Your task to perform on an android device: Go to internet settings Image 0: 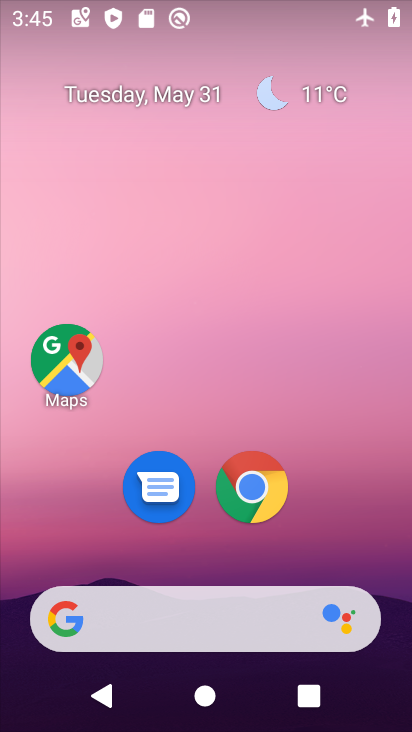
Step 0: drag from (358, 535) to (308, 121)
Your task to perform on an android device: Go to internet settings Image 1: 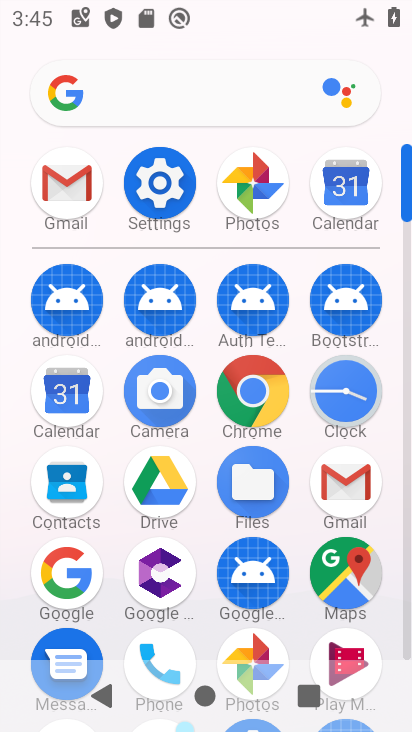
Step 1: click (159, 183)
Your task to perform on an android device: Go to internet settings Image 2: 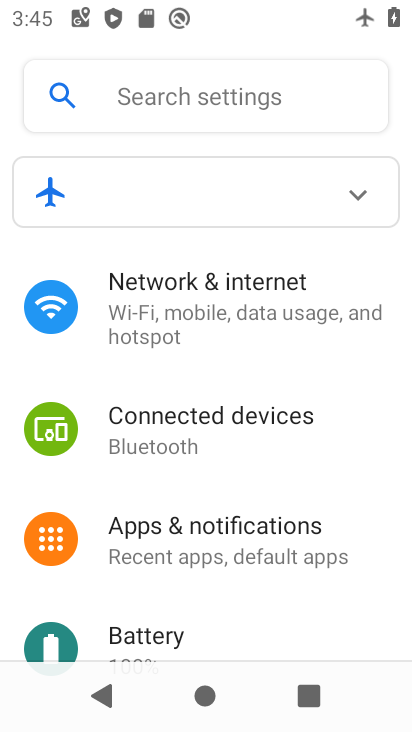
Step 2: click (194, 287)
Your task to perform on an android device: Go to internet settings Image 3: 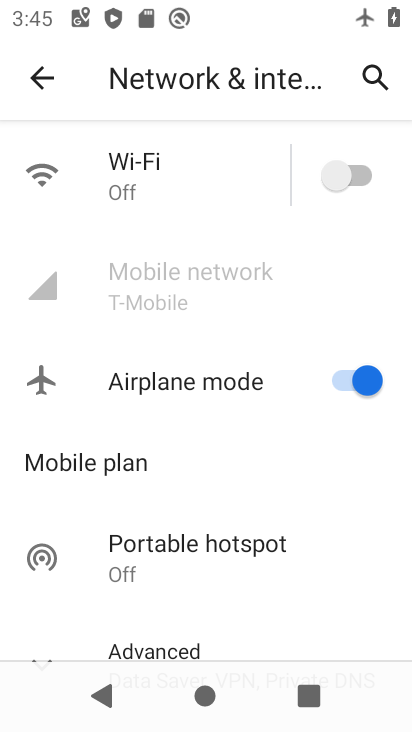
Step 3: task complete